Your task to perform on an android device: Turn off the flashlight Image 0: 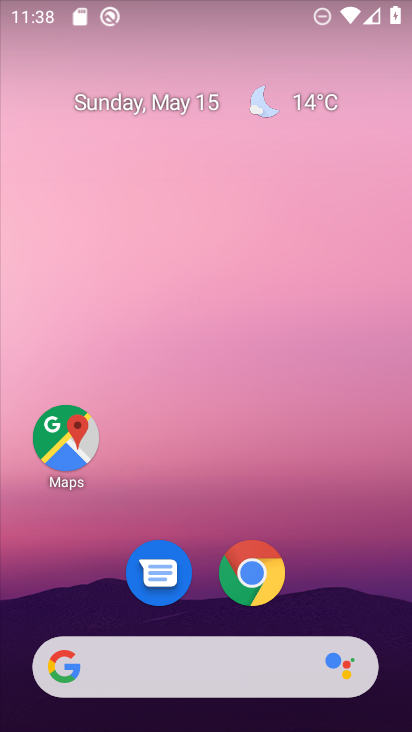
Step 0: drag from (225, 495) to (206, 99)
Your task to perform on an android device: Turn off the flashlight Image 1: 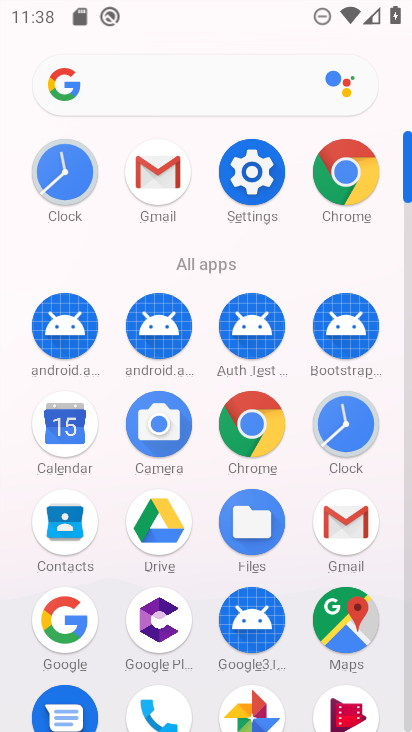
Step 1: click (246, 169)
Your task to perform on an android device: Turn off the flashlight Image 2: 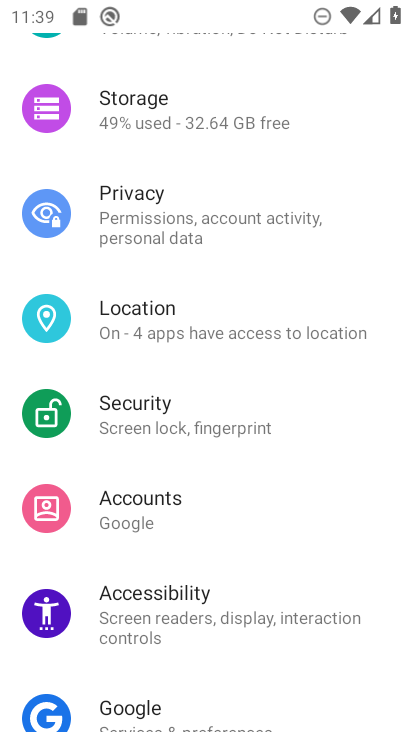
Step 2: drag from (206, 455) to (138, 151)
Your task to perform on an android device: Turn off the flashlight Image 3: 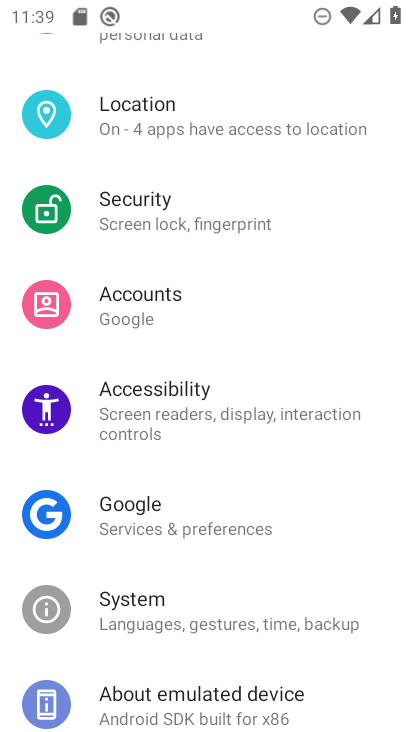
Step 3: drag from (213, 179) to (305, 725)
Your task to perform on an android device: Turn off the flashlight Image 4: 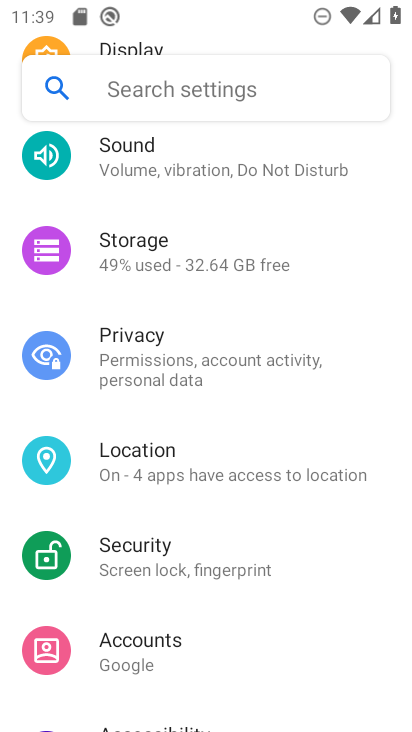
Step 4: click (122, 154)
Your task to perform on an android device: Turn off the flashlight Image 5: 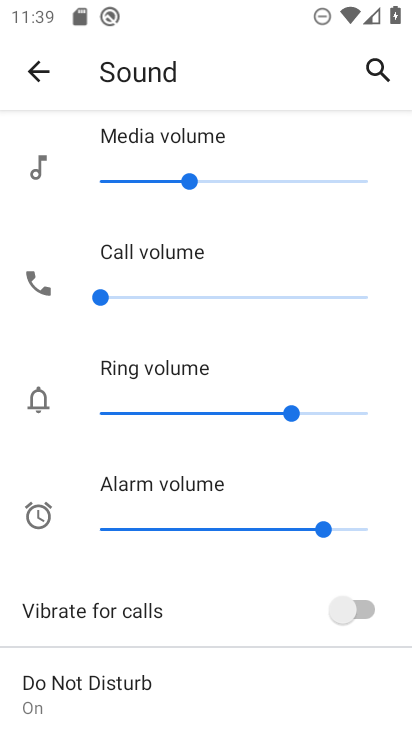
Step 5: task complete